Your task to perform on an android device: Set the phone to "Do not disturb". Image 0: 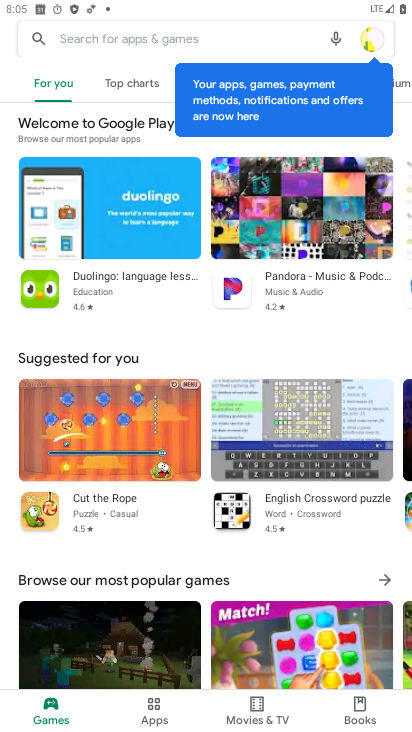
Step 0: press home button
Your task to perform on an android device: Set the phone to "Do not disturb". Image 1: 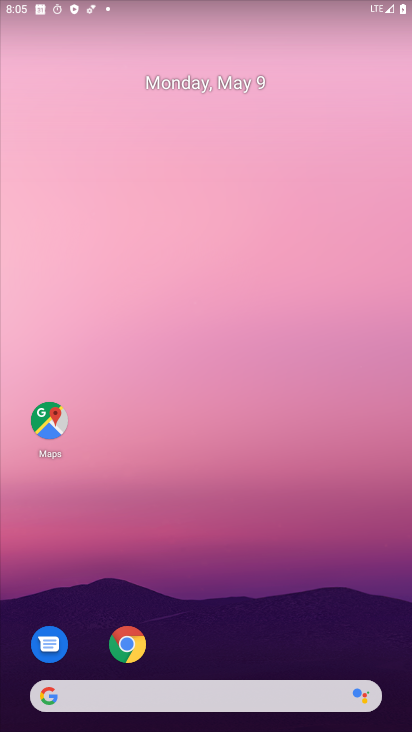
Step 1: drag from (174, 669) to (193, 372)
Your task to perform on an android device: Set the phone to "Do not disturb". Image 2: 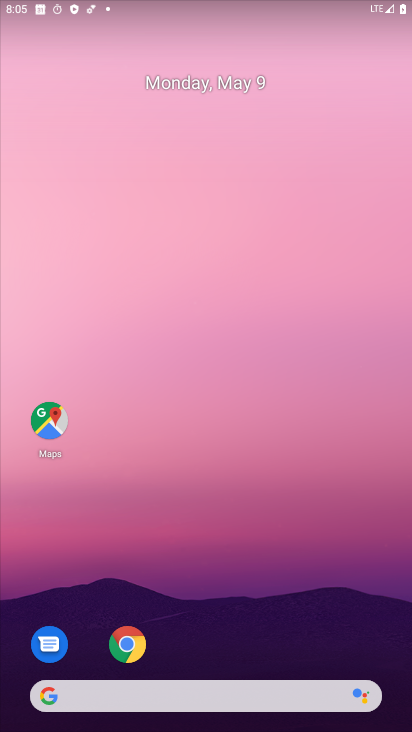
Step 2: drag from (172, 0) to (165, 305)
Your task to perform on an android device: Set the phone to "Do not disturb". Image 3: 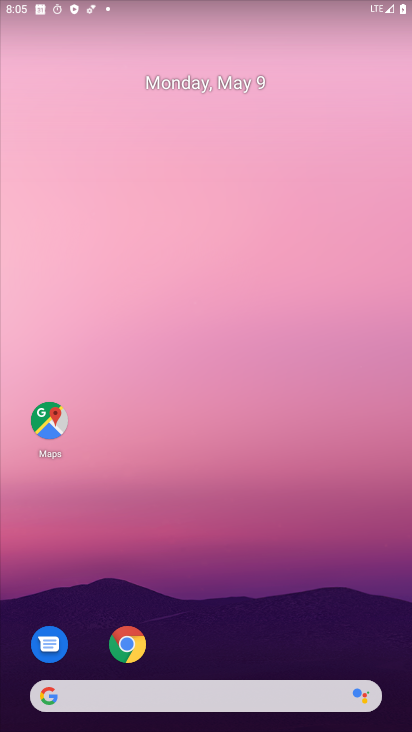
Step 3: drag from (167, 0) to (144, 482)
Your task to perform on an android device: Set the phone to "Do not disturb". Image 4: 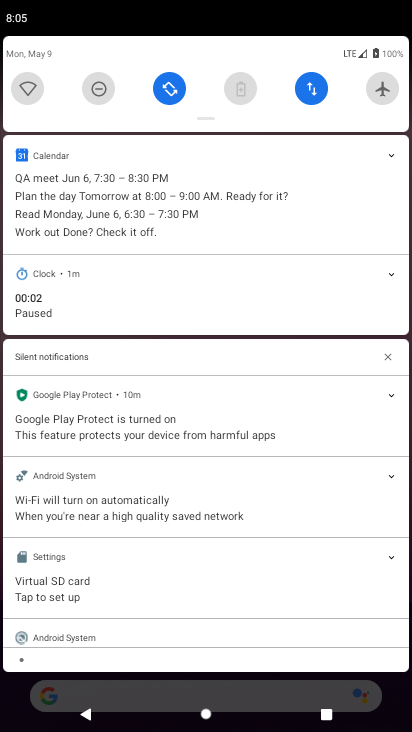
Step 4: click (100, 87)
Your task to perform on an android device: Set the phone to "Do not disturb". Image 5: 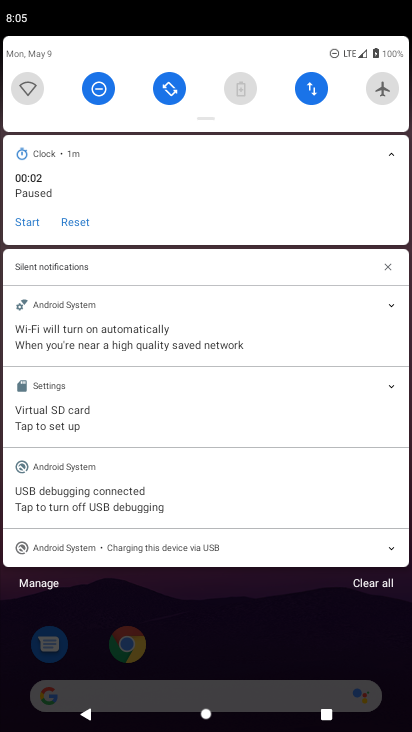
Step 5: task complete